Your task to perform on an android device: Search for pizza restaurants on Maps Image 0: 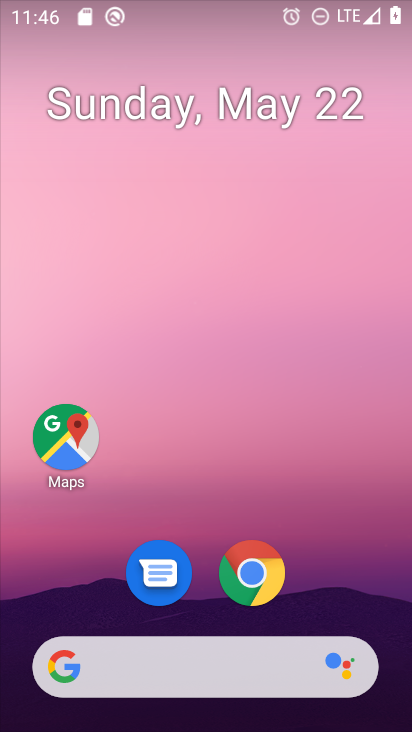
Step 0: click (58, 441)
Your task to perform on an android device: Search for pizza restaurants on Maps Image 1: 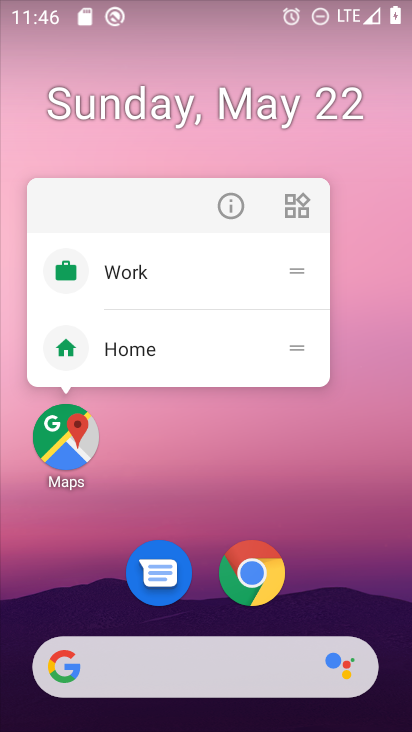
Step 1: click (58, 452)
Your task to perform on an android device: Search for pizza restaurants on Maps Image 2: 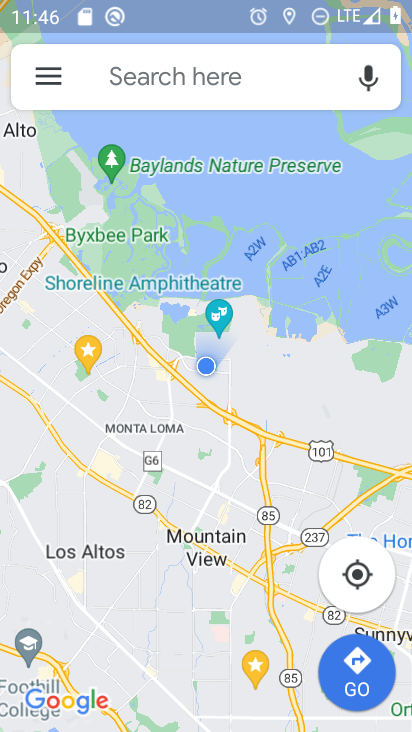
Step 2: click (130, 85)
Your task to perform on an android device: Search for pizza restaurants on Maps Image 3: 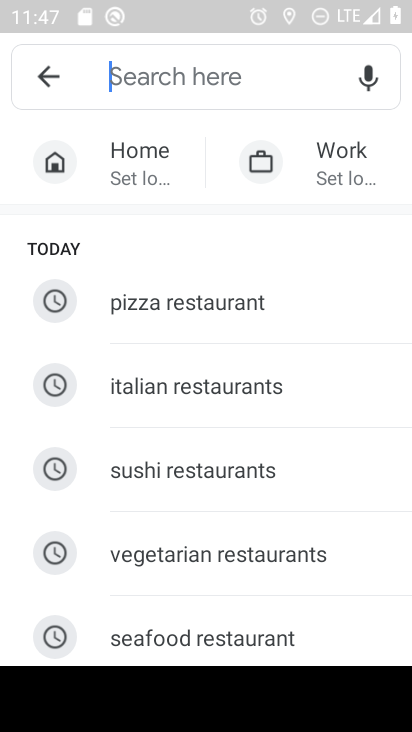
Step 3: type "pizza restaurants"
Your task to perform on an android device: Search for pizza restaurants on Maps Image 4: 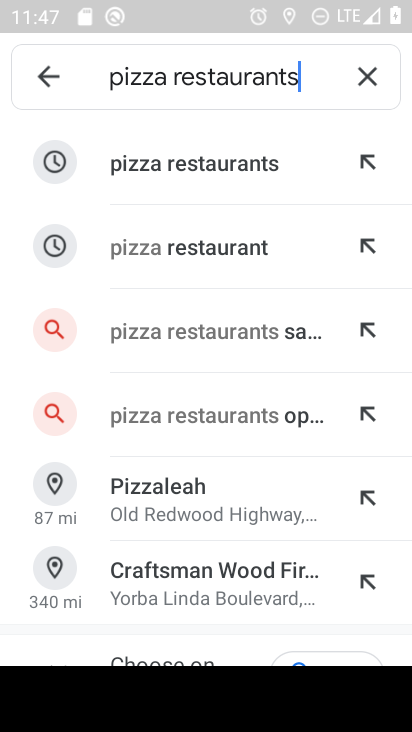
Step 4: click (167, 164)
Your task to perform on an android device: Search for pizza restaurants on Maps Image 5: 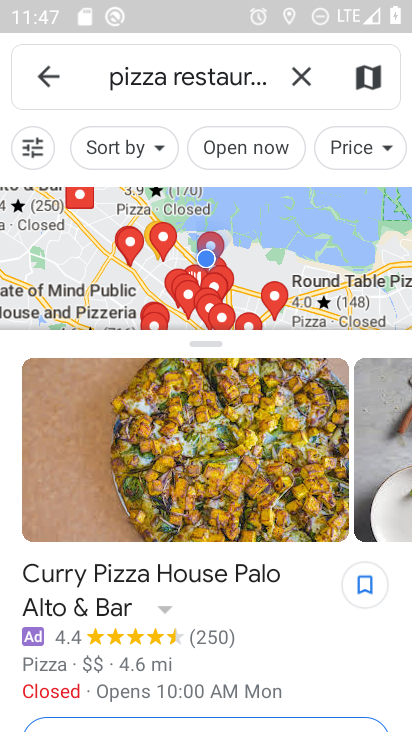
Step 5: task complete